Your task to perform on an android device: Open calendar and show me the second week of next month Image 0: 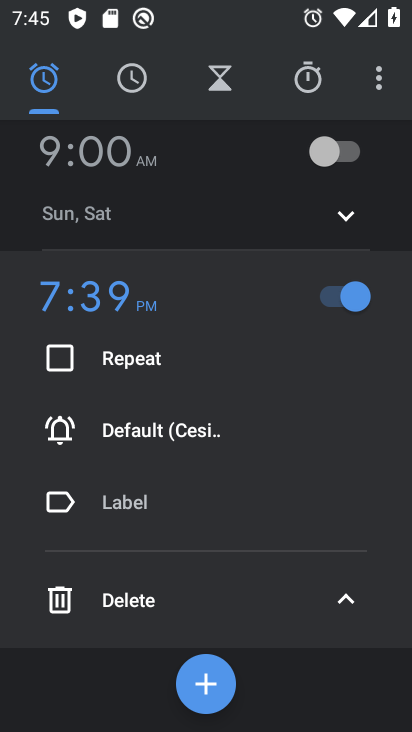
Step 0: press home button
Your task to perform on an android device: Open calendar and show me the second week of next month Image 1: 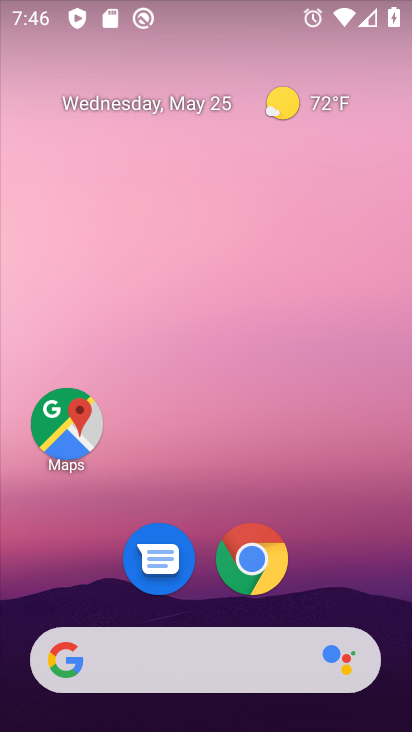
Step 1: drag from (285, 670) to (308, 15)
Your task to perform on an android device: Open calendar and show me the second week of next month Image 2: 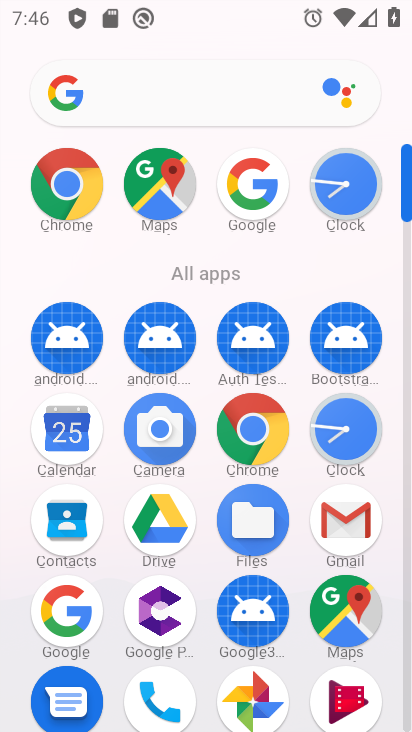
Step 2: click (79, 436)
Your task to perform on an android device: Open calendar and show me the second week of next month Image 3: 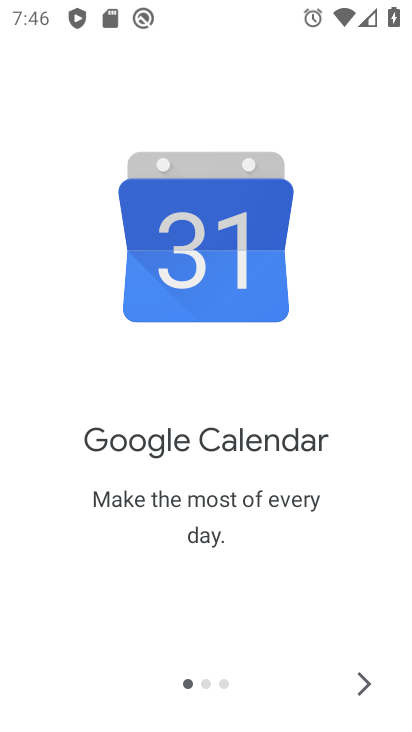
Step 3: click (363, 691)
Your task to perform on an android device: Open calendar and show me the second week of next month Image 4: 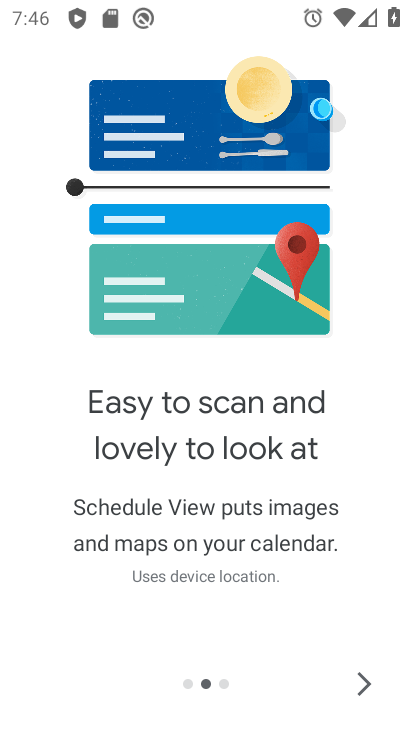
Step 4: click (365, 692)
Your task to perform on an android device: Open calendar and show me the second week of next month Image 5: 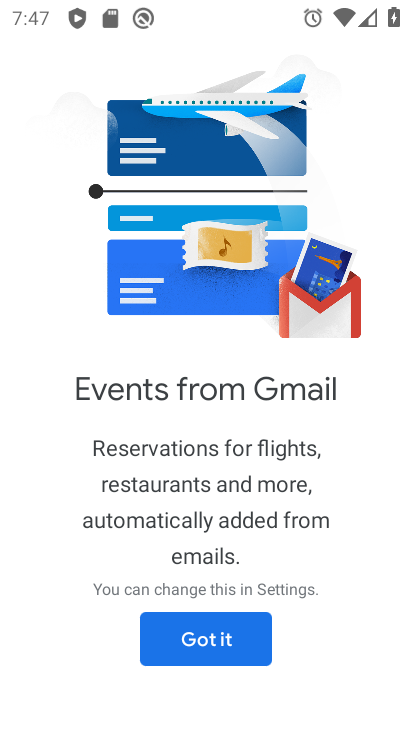
Step 5: click (244, 640)
Your task to perform on an android device: Open calendar and show me the second week of next month Image 6: 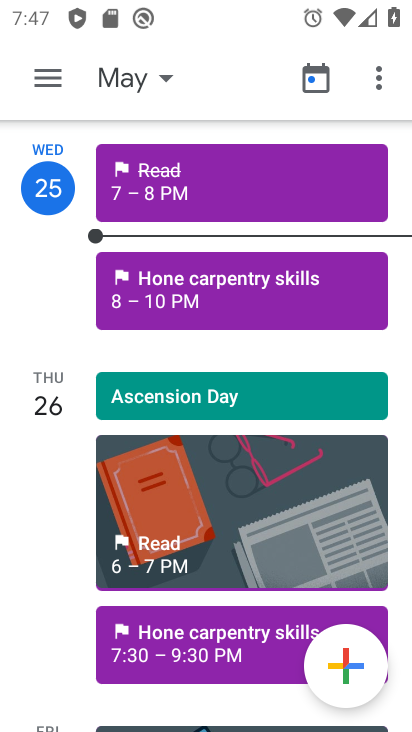
Step 6: click (127, 84)
Your task to perform on an android device: Open calendar and show me the second week of next month Image 7: 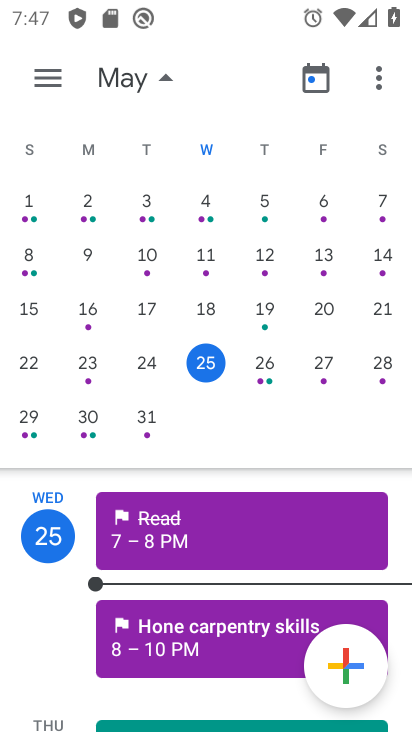
Step 7: drag from (334, 378) to (32, 430)
Your task to perform on an android device: Open calendar and show me the second week of next month Image 8: 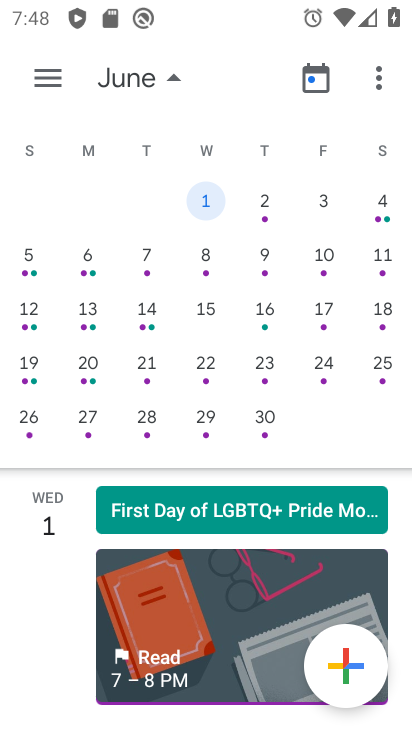
Step 8: click (29, 270)
Your task to perform on an android device: Open calendar and show me the second week of next month Image 9: 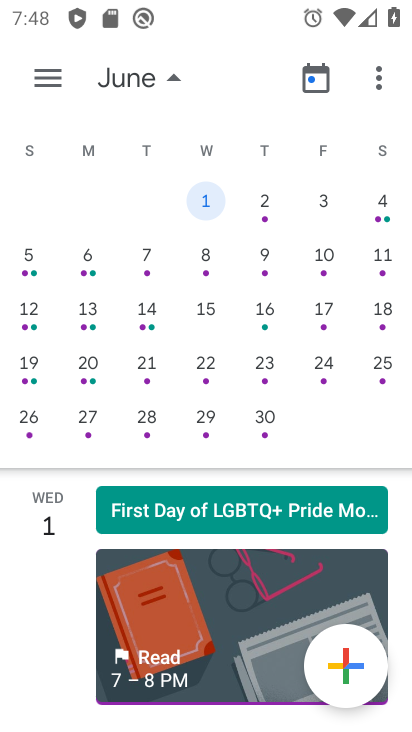
Step 9: click (36, 274)
Your task to perform on an android device: Open calendar and show me the second week of next month Image 10: 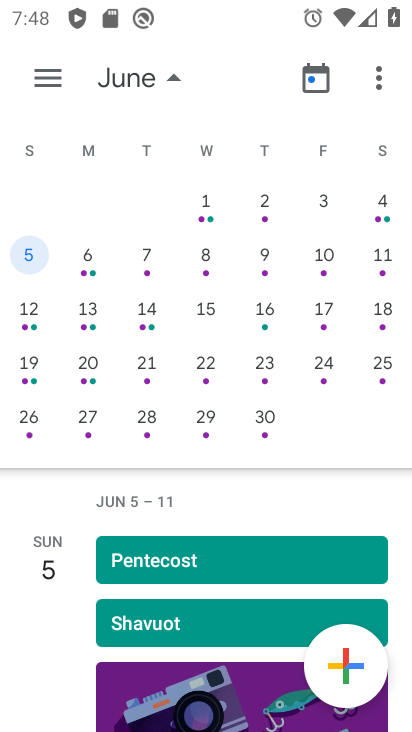
Step 10: task complete